Your task to perform on an android device: Open maps Image 0: 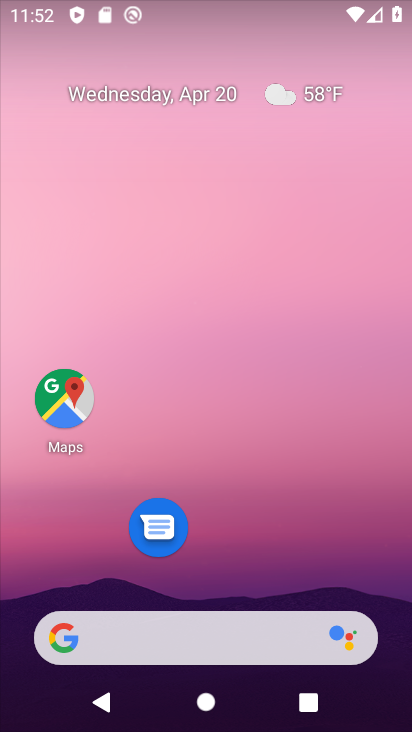
Step 0: drag from (225, 690) to (239, 83)
Your task to perform on an android device: Open maps Image 1: 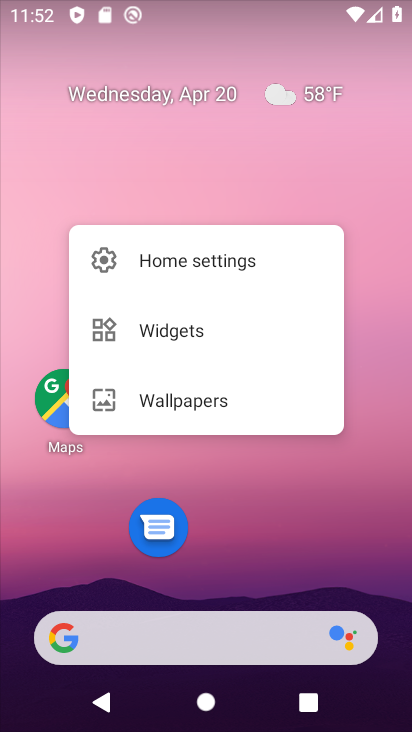
Step 1: click (236, 183)
Your task to perform on an android device: Open maps Image 2: 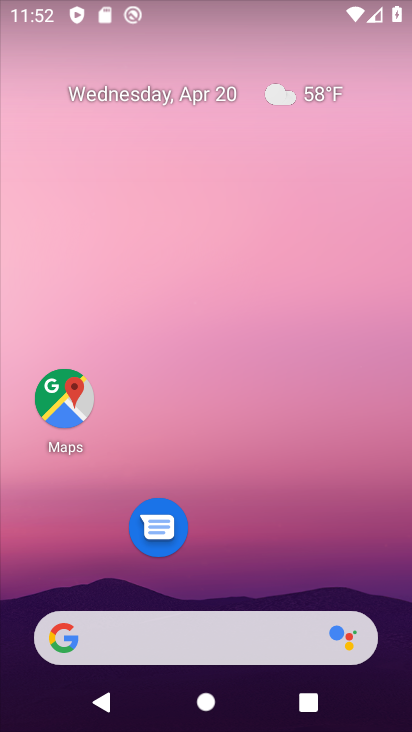
Step 2: drag from (232, 724) to (244, 232)
Your task to perform on an android device: Open maps Image 3: 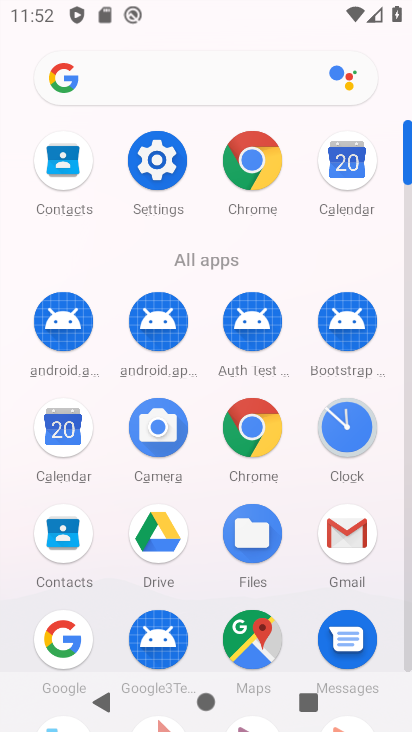
Step 3: click (247, 639)
Your task to perform on an android device: Open maps Image 4: 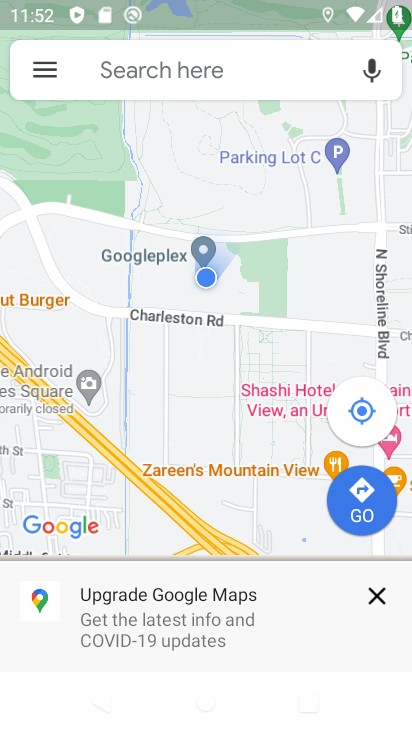
Step 4: task complete